Your task to perform on an android device: What's on my calendar tomorrow? Image 0: 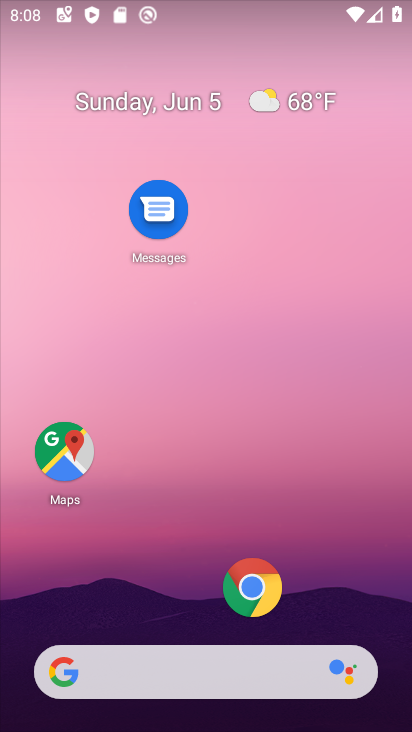
Step 0: drag from (197, 621) to (245, 12)
Your task to perform on an android device: What's on my calendar tomorrow? Image 1: 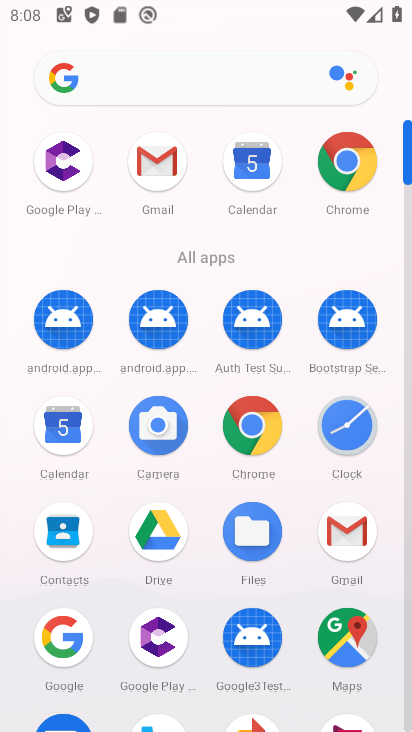
Step 1: click (61, 428)
Your task to perform on an android device: What's on my calendar tomorrow? Image 2: 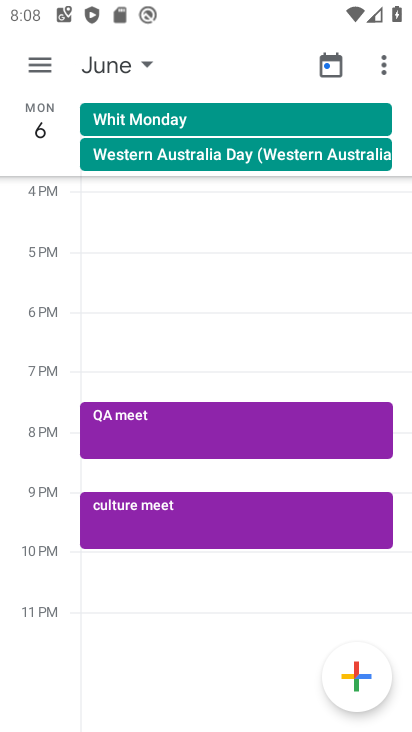
Step 2: task complete